Your task to perform on an android device: Turn off the flashlight Image 0: 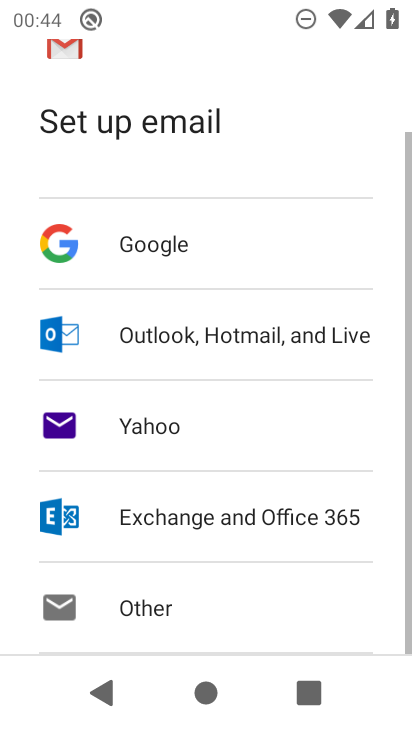
Step 0: press home button
Your task to perform on an android device: Turn off the flashlight Image 1: 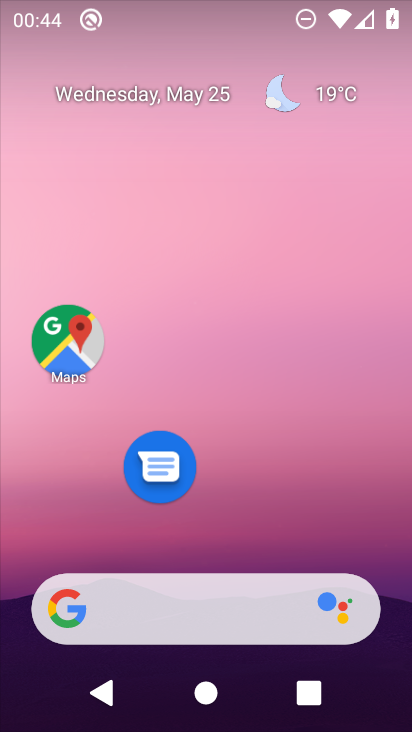
Step 1: drag from (214, 574) to (281, 116)
Your task to perform on an android device: Turn off the flashlight Image 2: 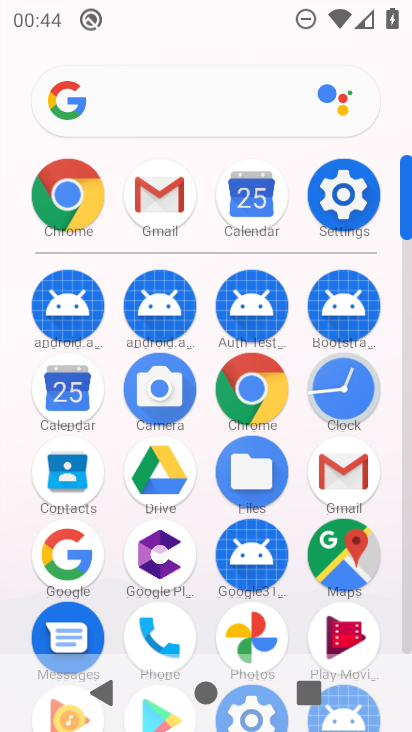
Step 2: click (346, 191)
Your task to perform on an android device: Turn off the flashlight Image 3: 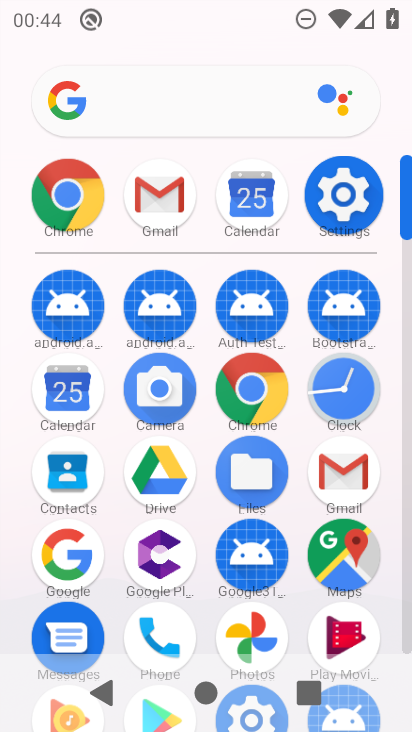
Step 3: click (346, 191)
Your task to perform on an android device: Turn off the flashlight Image 4: 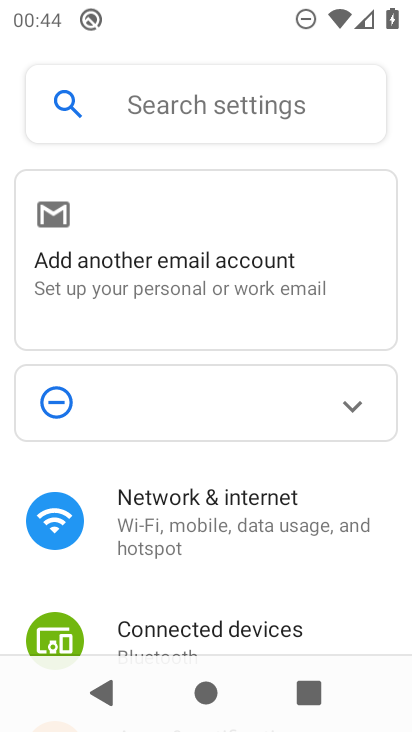
Step 4: click (160, 114)
Your task to perform on an android device: Turn off the flashlight Image 5: 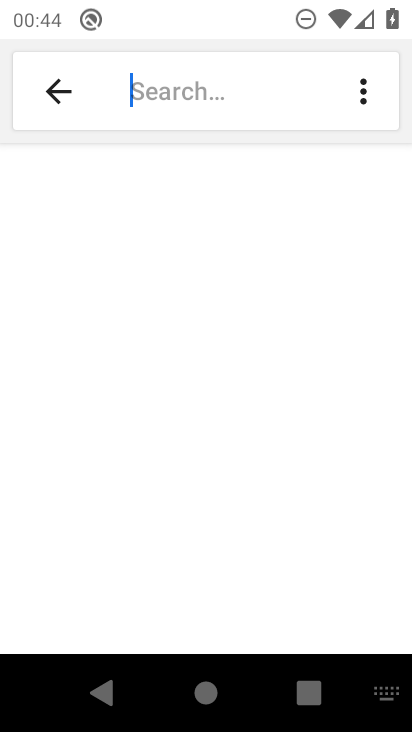
Step 5: type "flashlight"
Your task to perform on an android device: Turn off the flashlight Image 6: 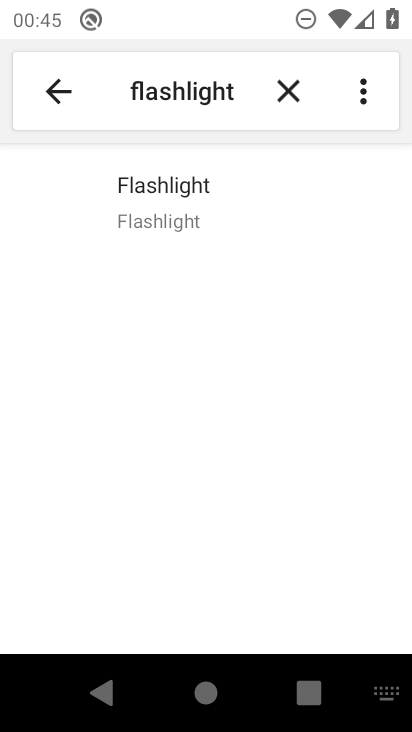
Step 6: click (284, 191)
Your task to perform on an android device: Turn off the flashlight Image 7: 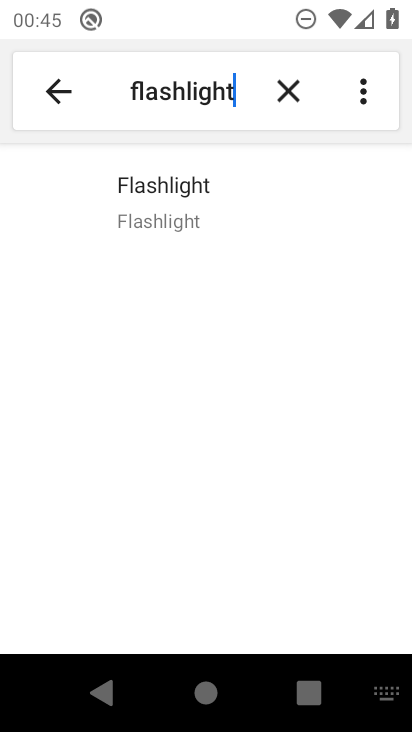
Step 7: task complete